Your task to perform on an android device: Open Yahoo.com Image 0: 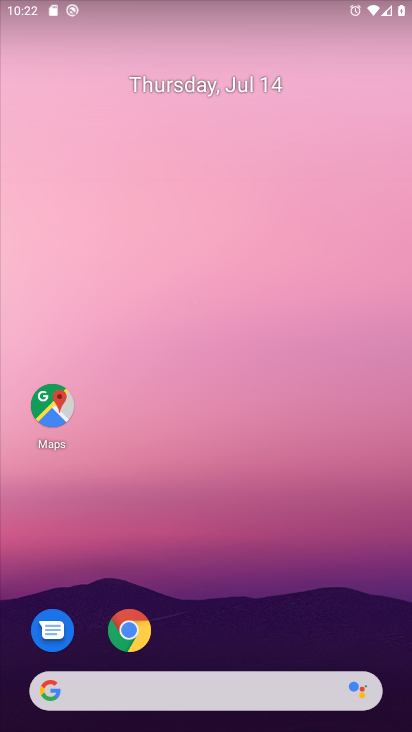
Step 0: click (229, 189)
Your task to perform on an android device: Open Yahoo.com Image 1: 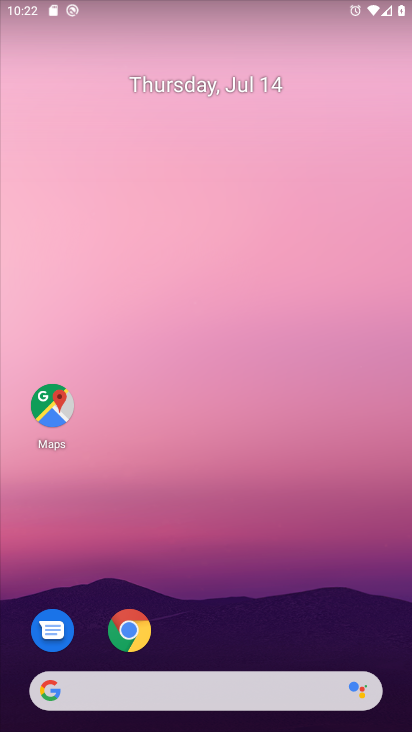
Step 1: drag from (172, 648) to (245, 97)
Your task to perform on an android device: Open Yahoo.com Image 2: 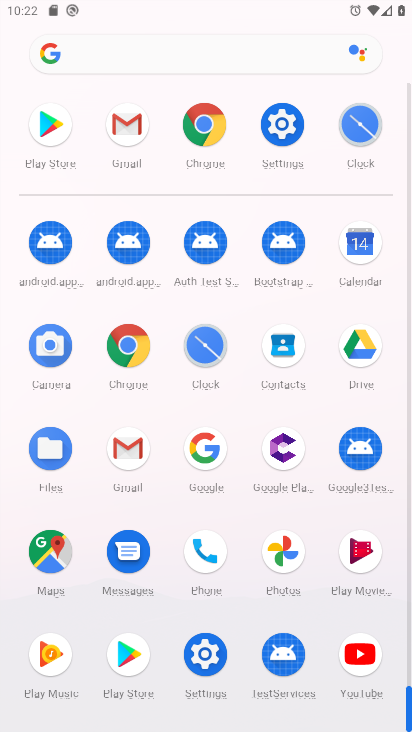
Step 2: click (158, 55)
Your task to perform on an android device: Open Yahoo.com Image 3: 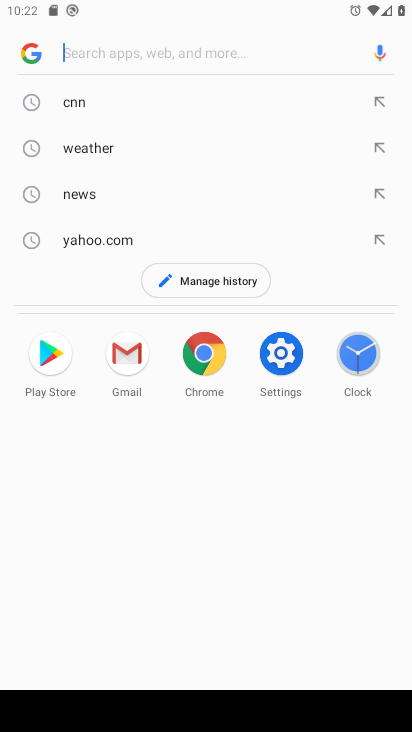
Step 3: click (141, 240)
Your task to perform on an android device: Open Yahoo.com Image 4: 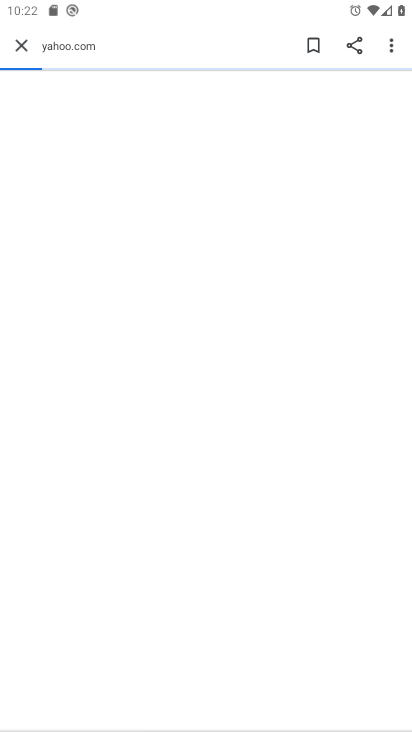
Step 4: task complete